Your task to perform on an android device: Open eBay Image 0: 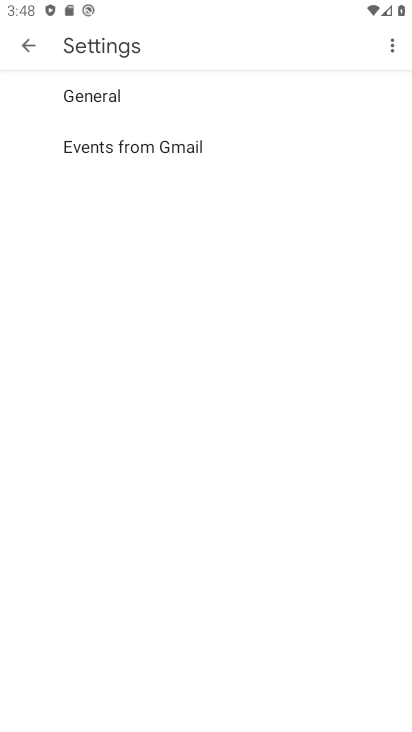
Step 0: drag from (310, 630) to (215, 157)
Your task to perform on an android device: Open eBay Image 1: 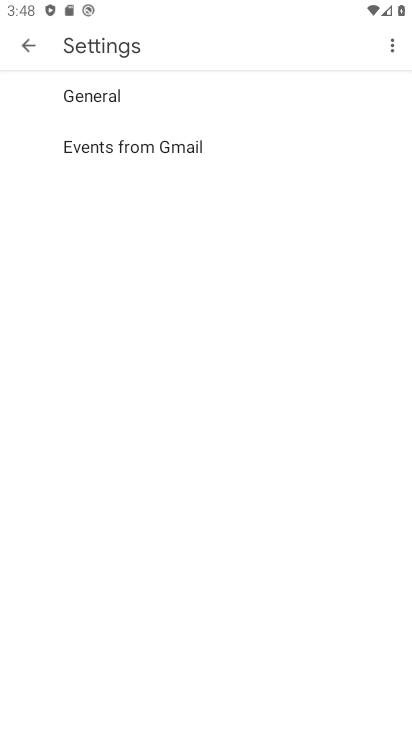
Step 1: press home button
Your task to perform on an android device: Open eBay Image 2: 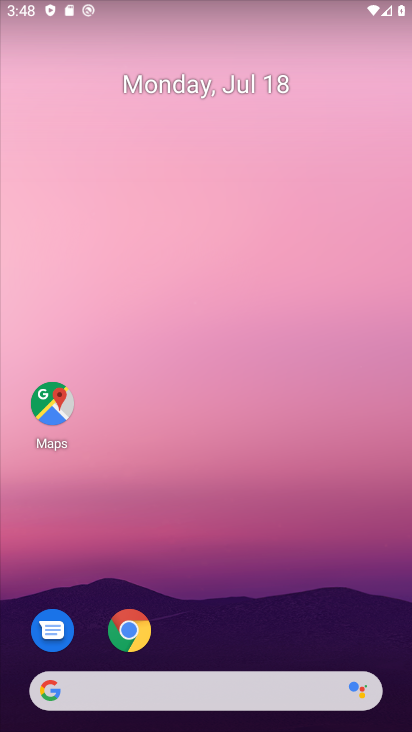
Step 2: drag from (303, 581) to (211, 91)
Your task to perform on an android device: Open eBay Image 3: 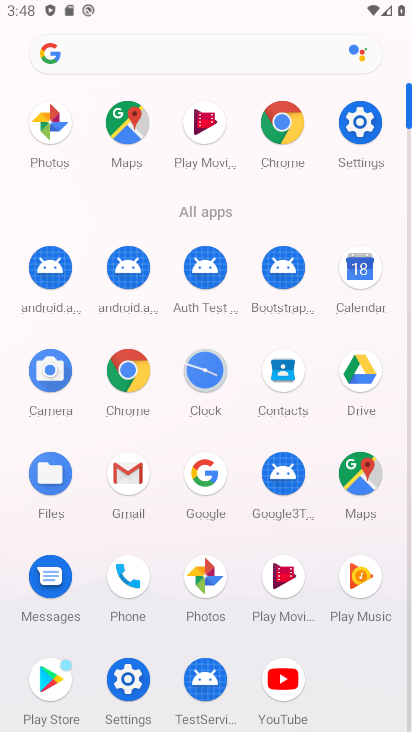
Step 3: click (283, 120)
Your task to perform on an android device: Open eBay Image 4: 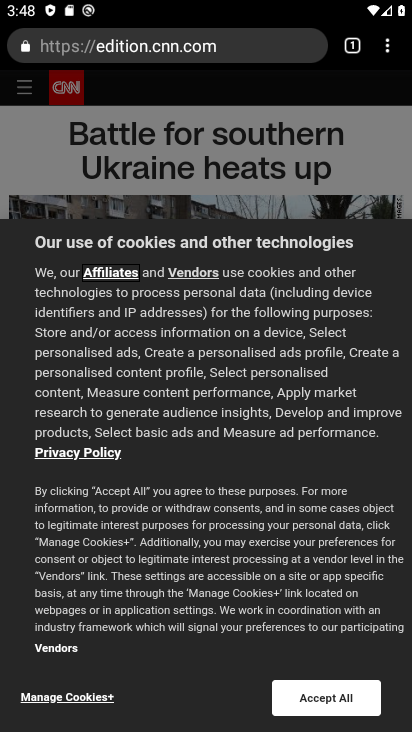
Step 4: click (176, 41)
Your task to perform on an android device: Open eBay Image 5: 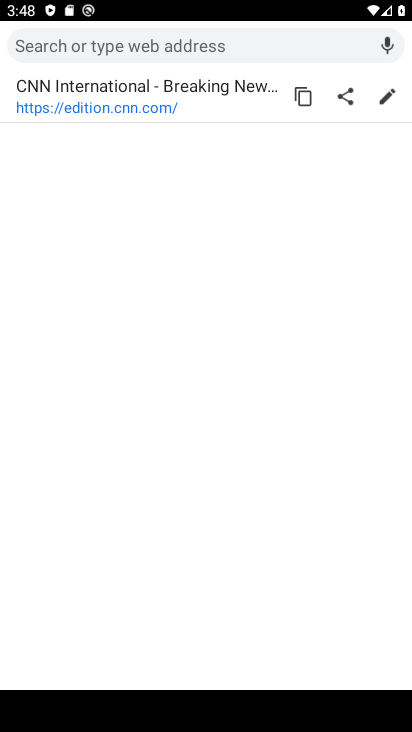
Step 5: type "ebay"
Your task to perform on an android device: Open eBay Image 6: 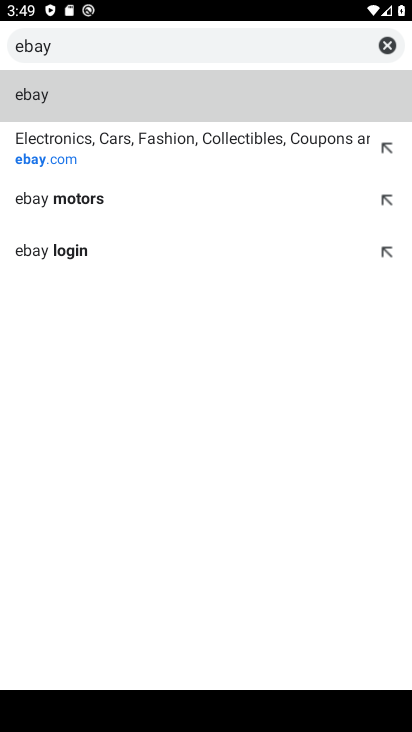
Step 6: click (48, 159)
Your task to perform on an android device: Open eBay Image 7: 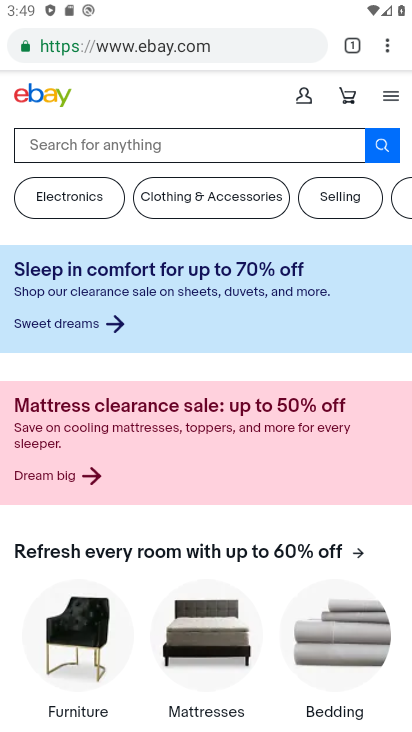
Step 7: task complete